Your task to perform on an android device: See recent photos Image 0: 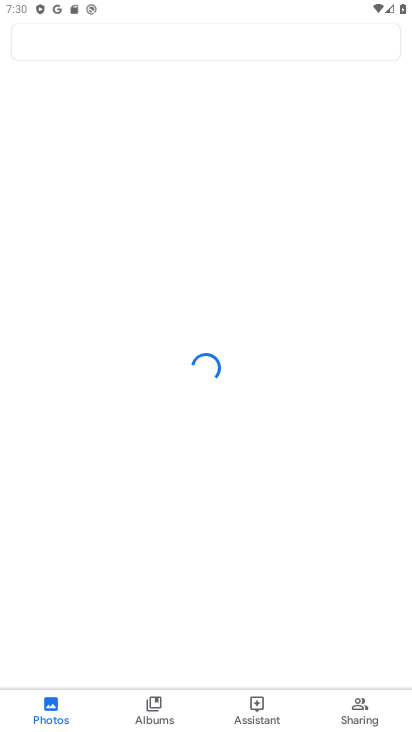
Step 0: press home button
Your task to perform on an android device: See recent photos Image 1: 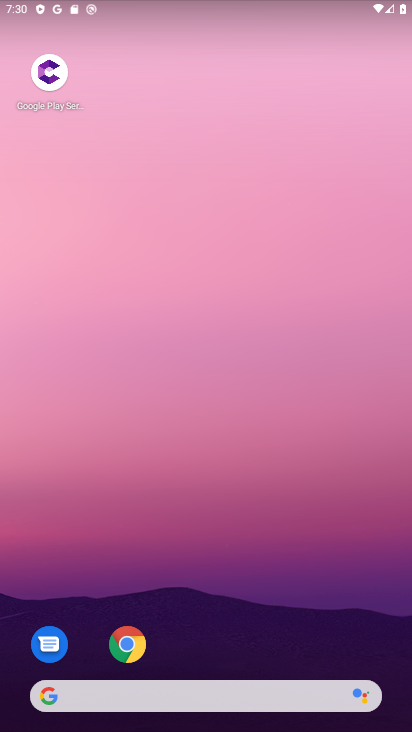
Step 1: drag from (234, 679) to (174, 267)
Your task to perform on an android device: See recent photos Image 2: 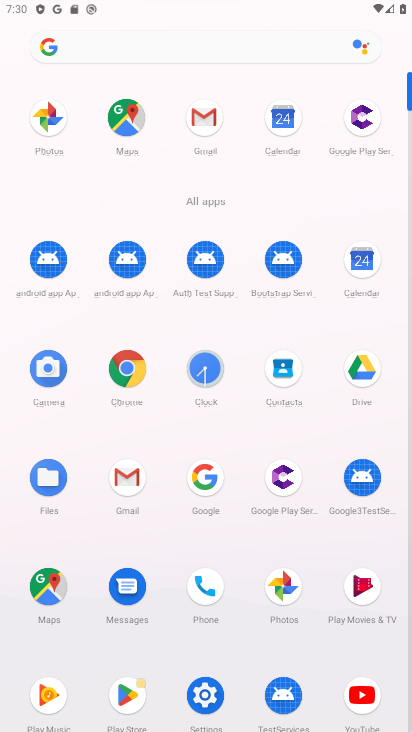
Step 2: click (281, 577)
Your task to perform on an android device: See recent photos Image 3: 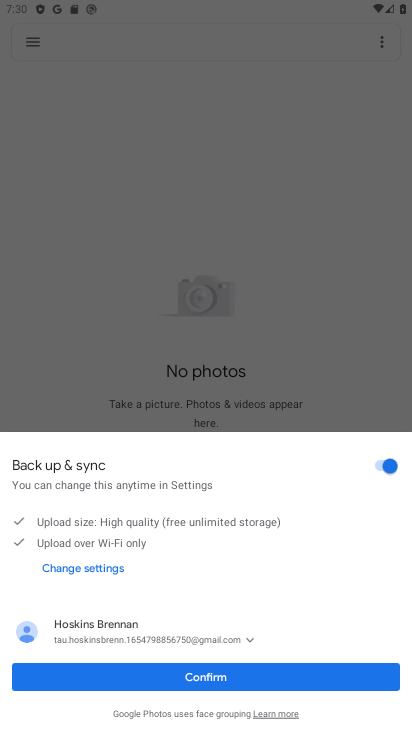
Step 3: click (199, 677)
Your task to perform on an android device: See recent photos Image 4: 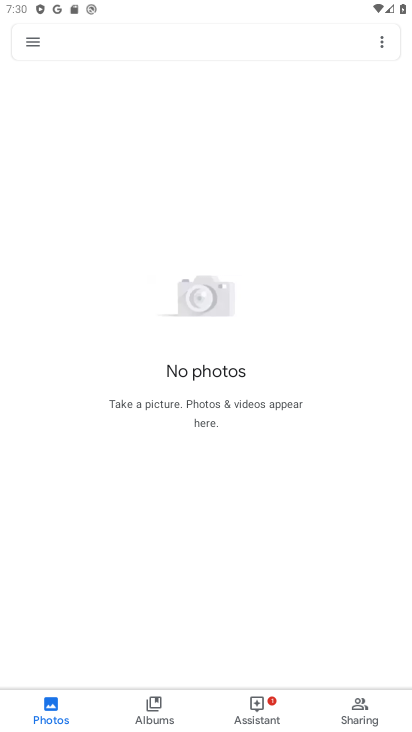
Step 4: task complete